Your task to perform on an android device: What's the weather going to be tomorrow? Image 0: 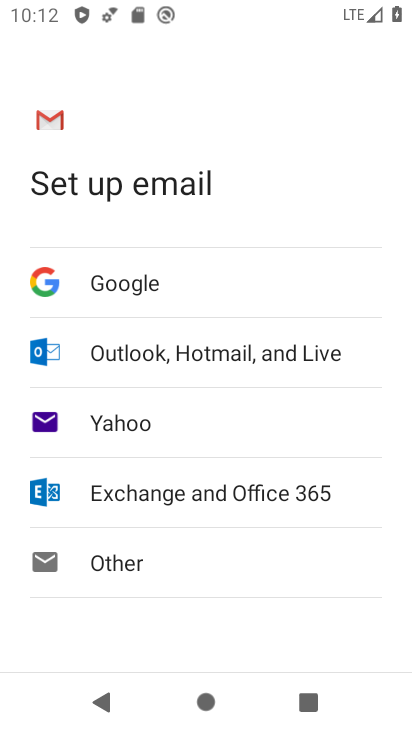
Step 0: press home button
Your task to perform on an android device: What's the weather going to be tomorrow? Image 1: 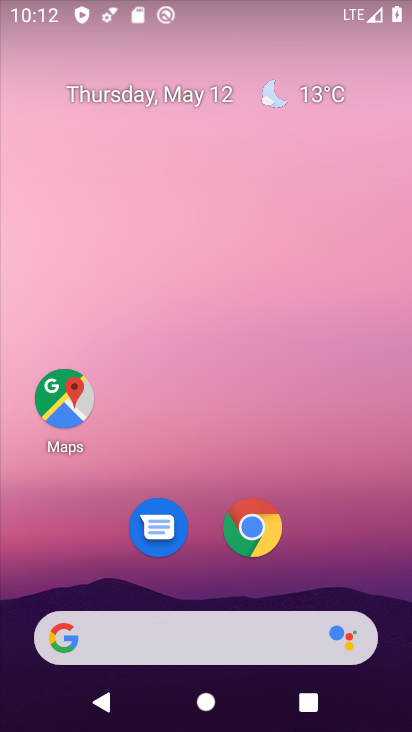
Step 1: click (132, 634)
Your task to perform on an android device: What's the weather going to be tomorrow? Image 2: 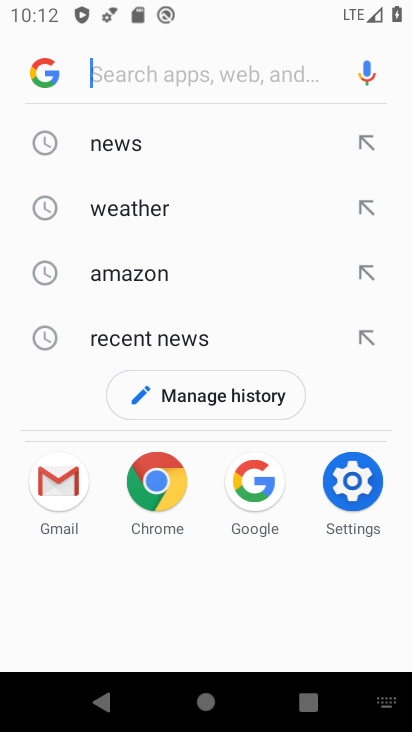
Step 2: click (158, 208)
Your task to perform on an android device: What's the weather going to be tomorrow? Image 3: 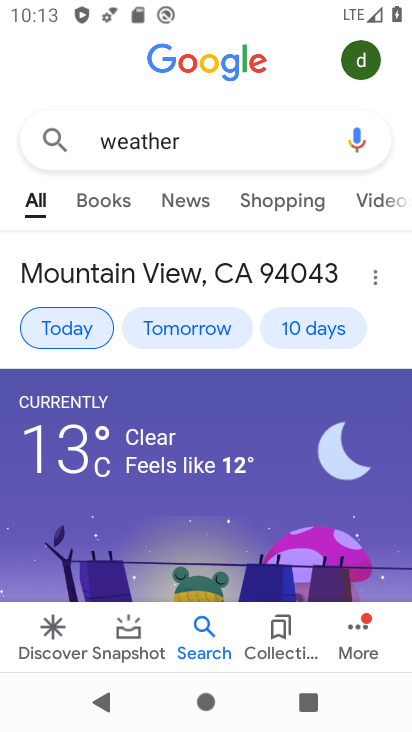
Step 3: click (189, 327)
Your task to perform on an android device: What's the weather going to be tomorrow? Image 4: 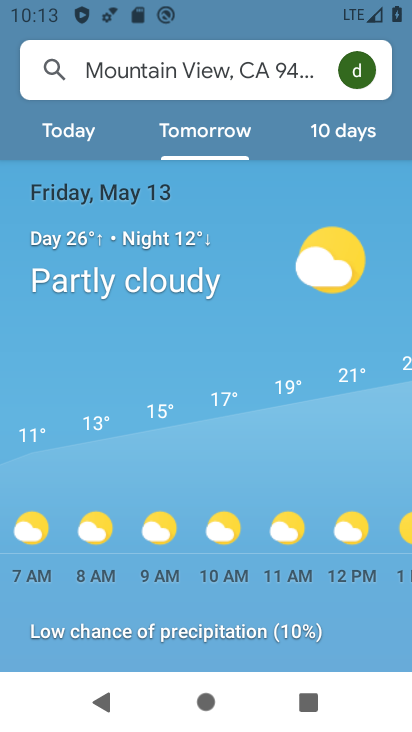
Step 4: task complete